Your task to perform on an android device: uninstall "Google Find My Device" Image 0: 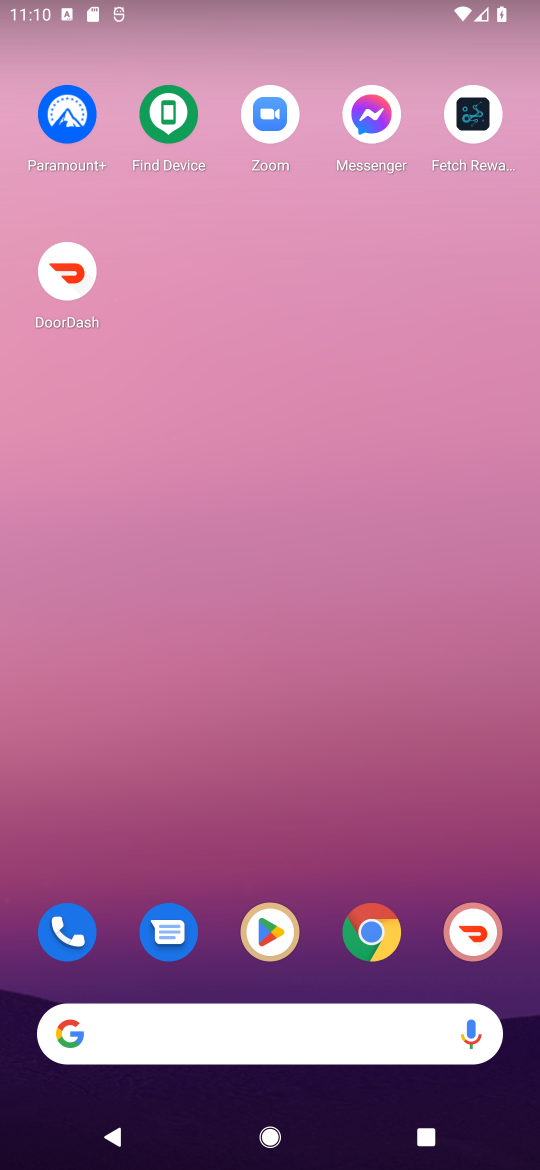
Step 0: click (282, 927)
Your task to perform on an android device: uninstall "Google Find My Device" Image 1: 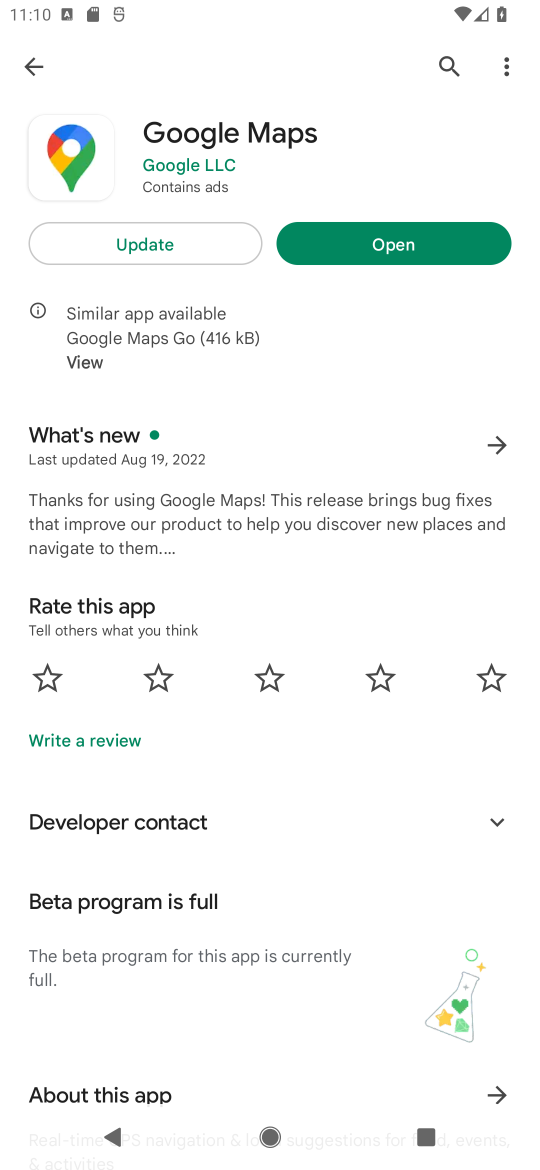
Step 1: click (452, 48)
Your task to perform on an android device: uninstall "Google Find My Device" Image 2: 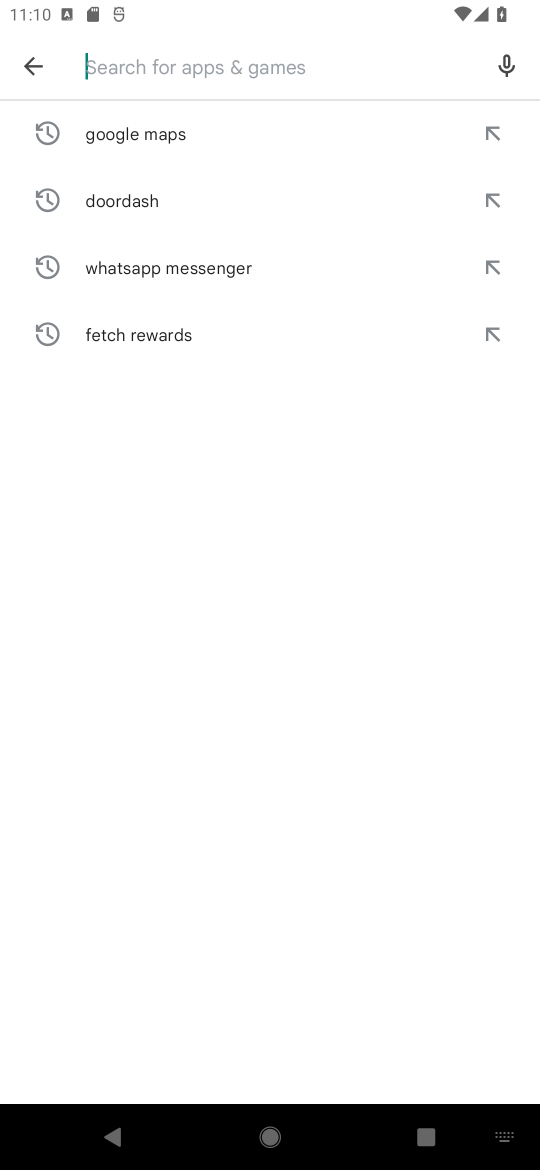
Step 2: click (146, 68)
Your task to perform on an android device: uninstall "Google Find My Device" Image 3: 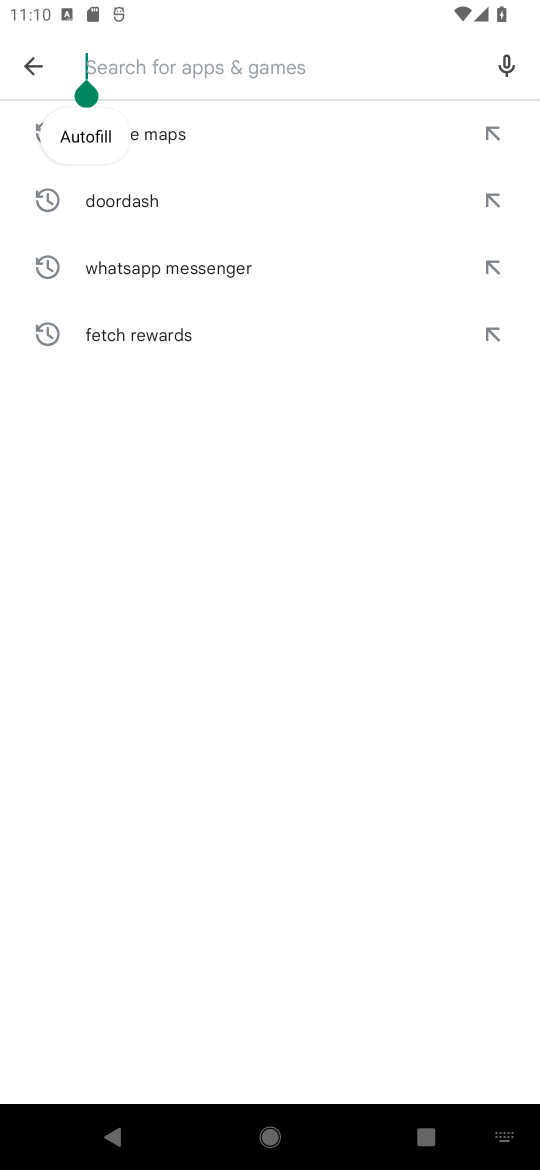
Step 3: type "Google Find My Device"
Your task to perform on an android device: uninstall "Google Find My Device" Image 4: 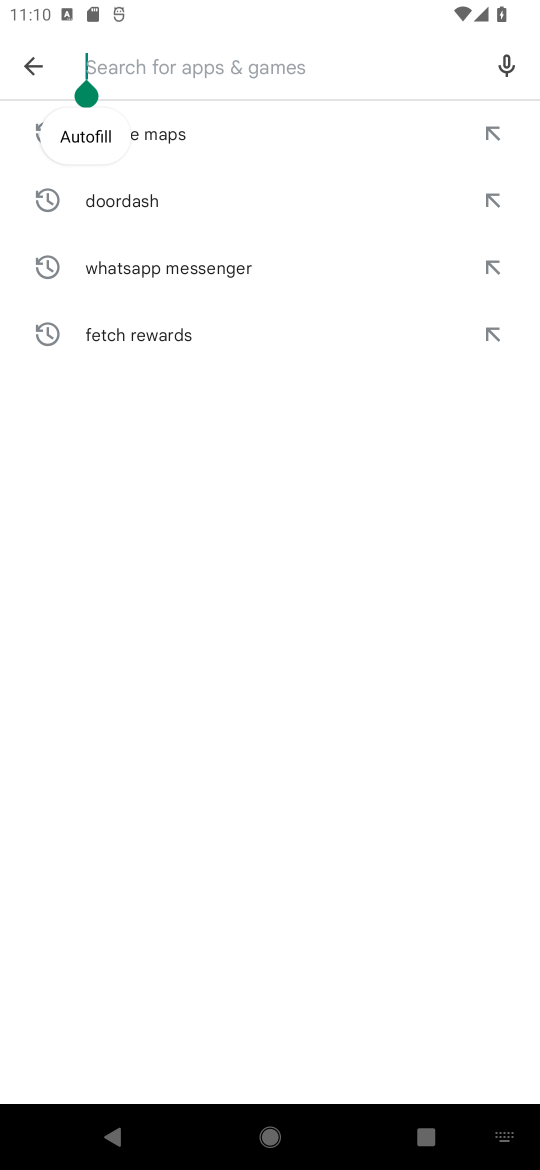
Step 4: click (369, 772)
Your task to perform on an android device: uninstall "Google Find My Device" Image 5: 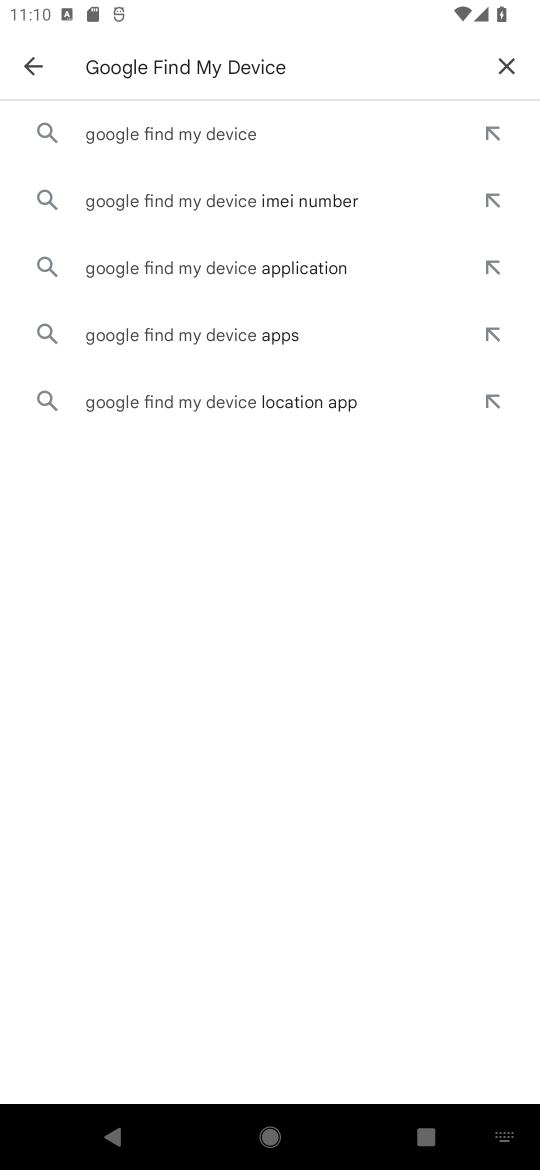
Step 5: click (152, 148)
Your task to perform on an android device: uninstall "Google Find My Device" Image 6: 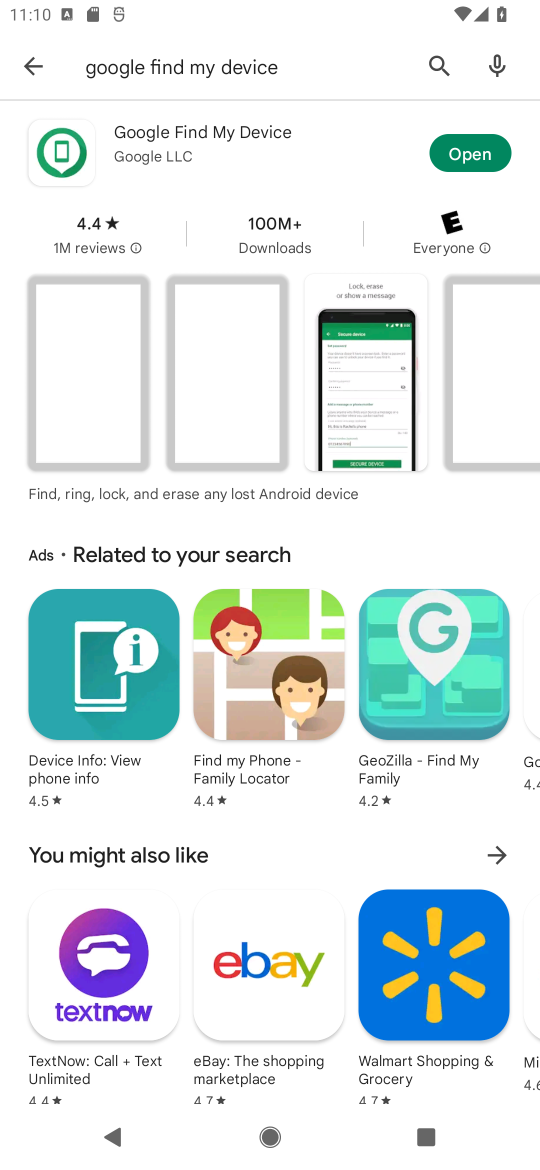
Step 6: click (187, 141)
Your task to perform on an android device: uninstall "Google Find My Device" Image 7: 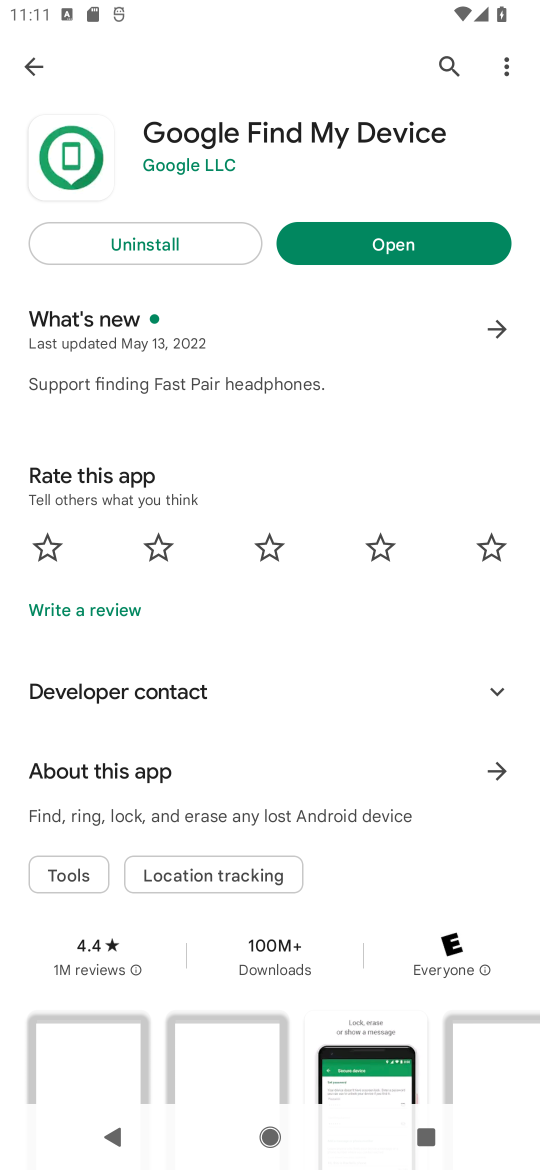
Step 7: click (153, 247)
Your task to perform on an android device: uninstall "Google Find My Device" Image 8: 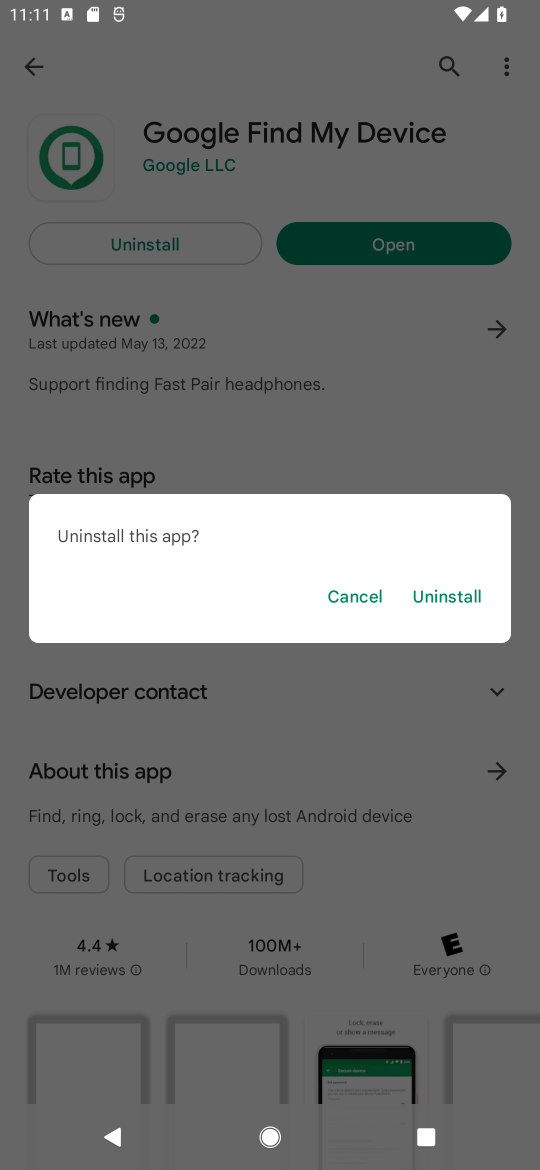
Step 8: click (431, 601)
Your task to perform on an android device: uninstall "Google Find My Device" Image 9: 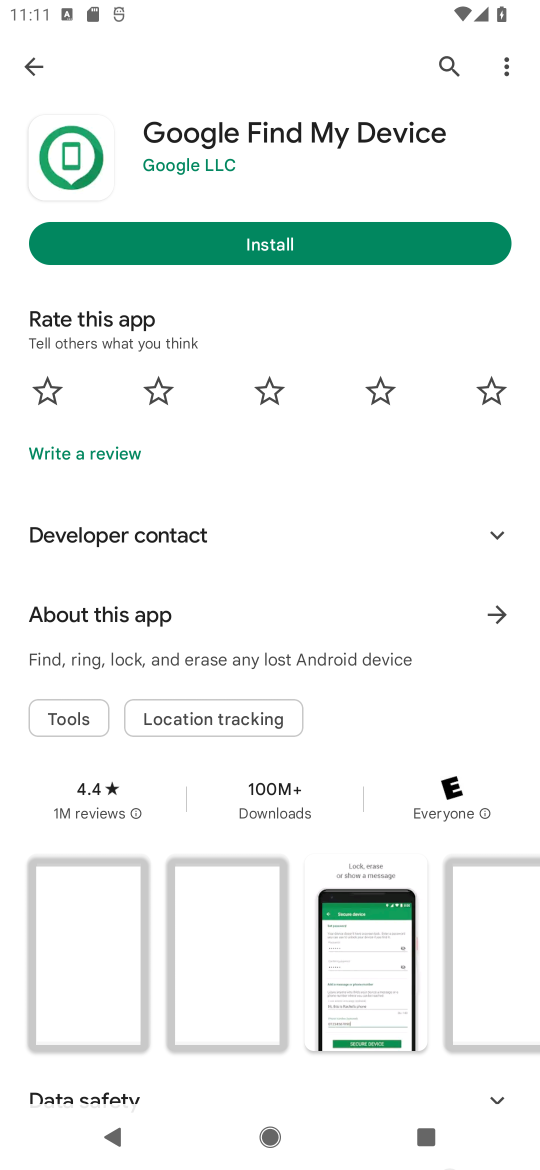
Step 9: task complete